Your task to perform on an android device: check the backup settings in the google photos Image 0: 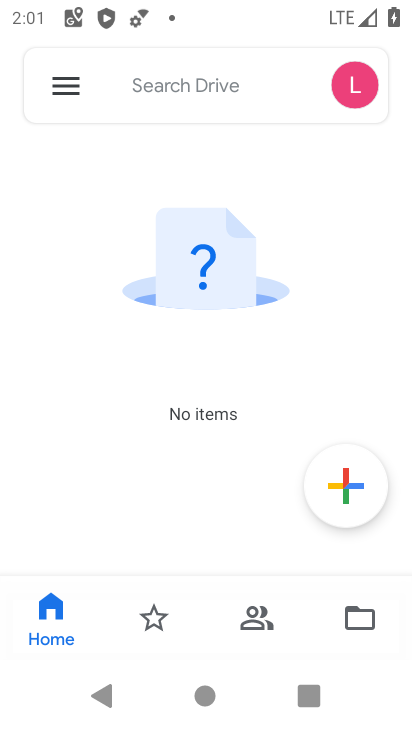
Step 0: press home button
Your task to perform on an android device: check the backup settings in the google photos Image 1: 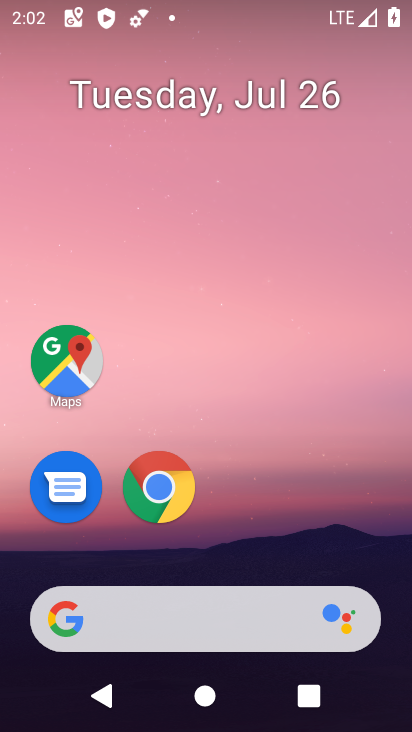
Step 1: drag from (186, 634) to (204, 244)
Your task to perform on an android device: check the backup settings in the google photos Image 2: 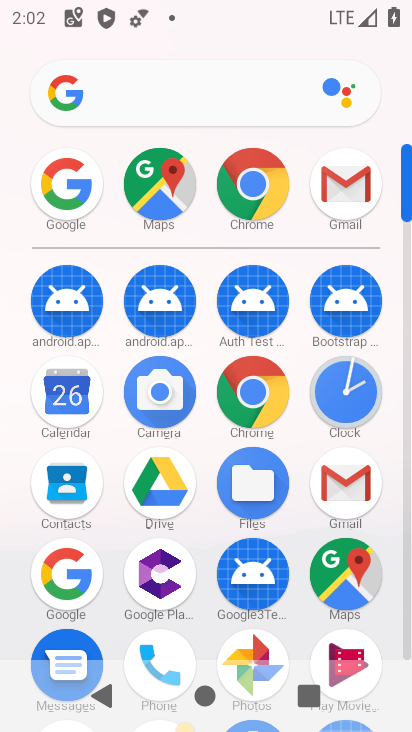
Step 2: drag from (223, 447) to (247, 200)
Your task to perform on an android device: check the backup settings in the google photos Image 3: 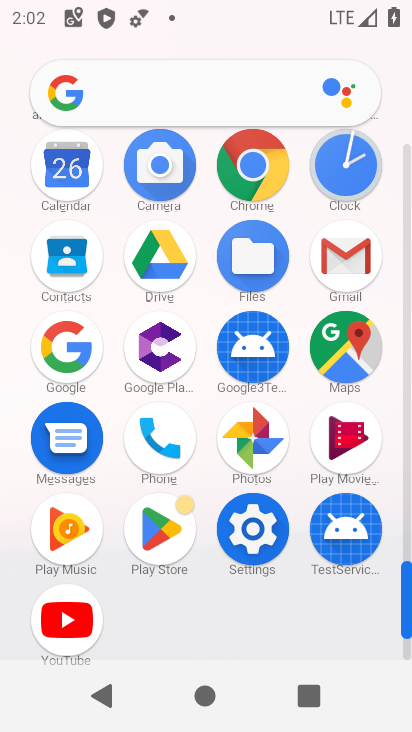
Step 3: click (259, 457)
Your task to perform on an android device: check the backup settings in the google photos Image 4: 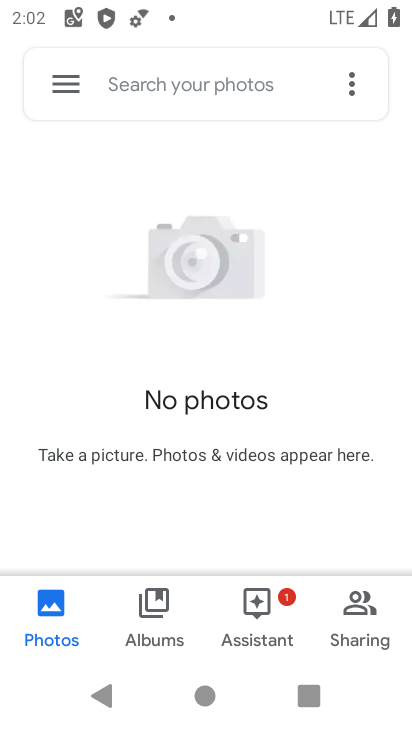
Step 4: click (72, 91)
Your task to perform on an android device: check the backup settings in the google photos Image 5: 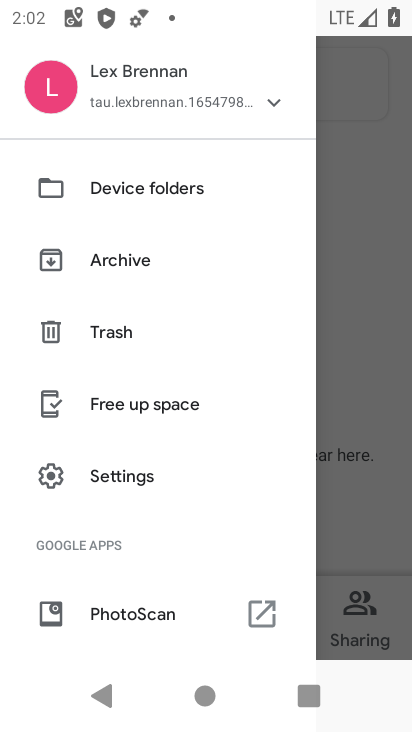
Step 5: click (92, 482)
Your task to perform on an android device: check the backup settings in the google photos Image 6: 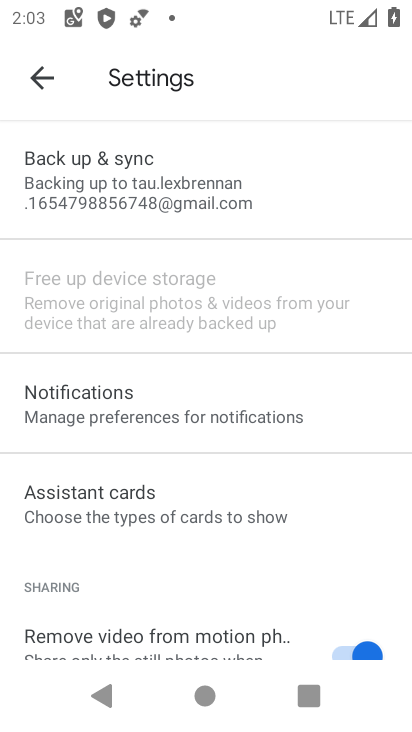
Step 6: click (116, 178)
Your task to perform on an android device: check the backup settings in the google photos Image 7: 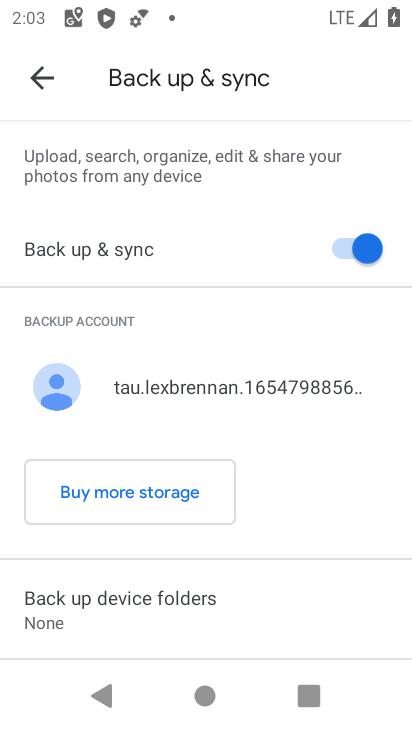
Step 7: task complete